Your task to perform on an android device: Open Google Maps and go to "Timeline" Image 0: 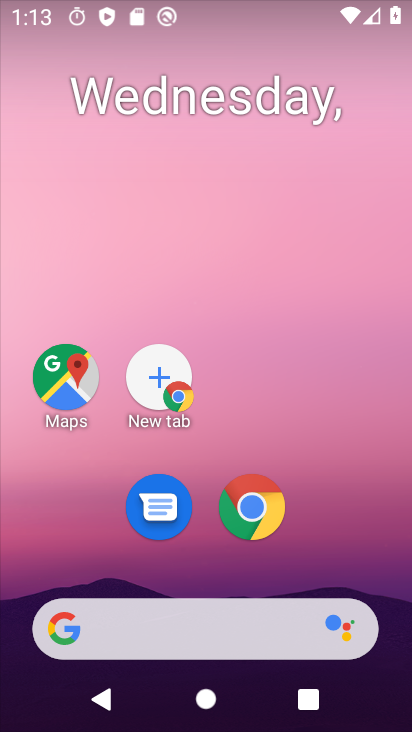
Step 0: drag from (301, 505) to (372, 43)
Your task to perform on an android device: Open Google Maps and go to "Timeline" Image 1: 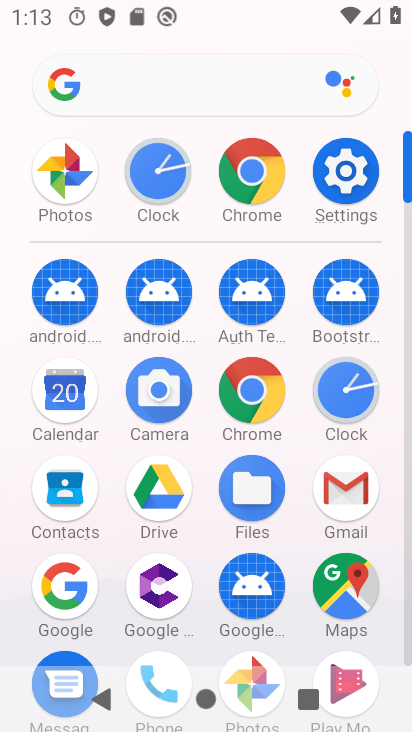
Step 1: click (345, 590)
Your task to perform on an android device: Open Google Maps and go to "Timeline" Image 2: 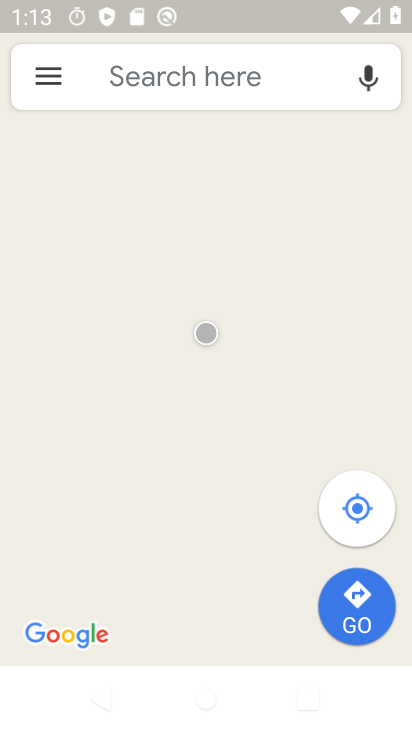
Step 2: click (41, 76)
Your task to perform on an android device: Open Google Maps and go to "Timeline" Image 3: 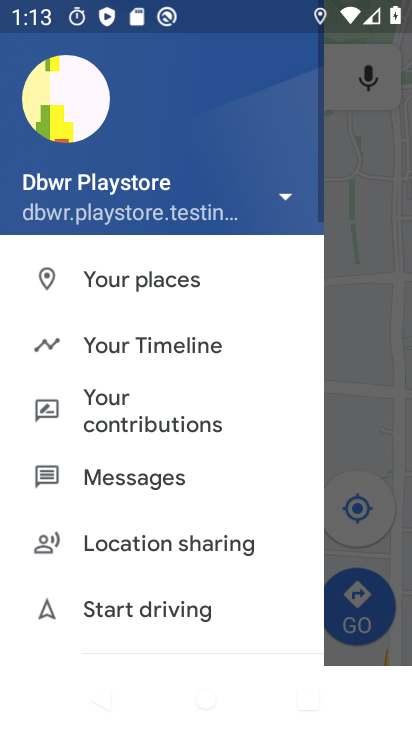
Step 3: click (141, 353)
Your task to perform on an android device: Open Google Maps and go to "Timeline" Image 4: 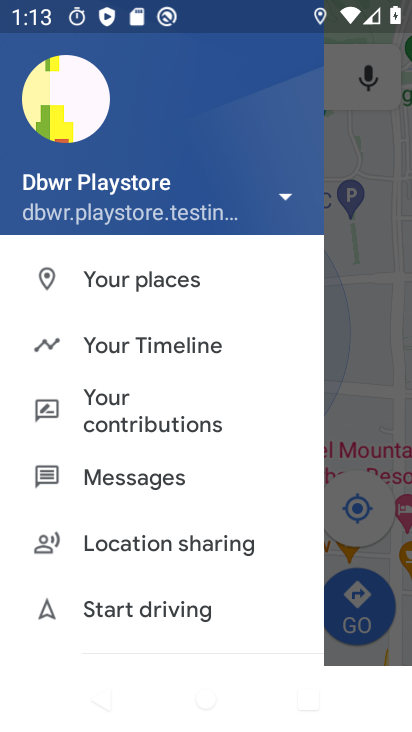
Step 4: click (141, 347)
Your task to perform on an android device: Open Google Maps and go to "Timeline" Image 5: 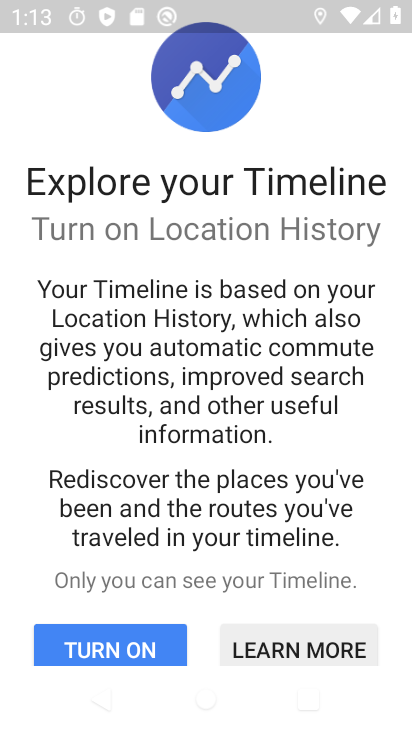
Step 5: task complete